Your task to perform on an android device: open chrome privacy settings Image 0: 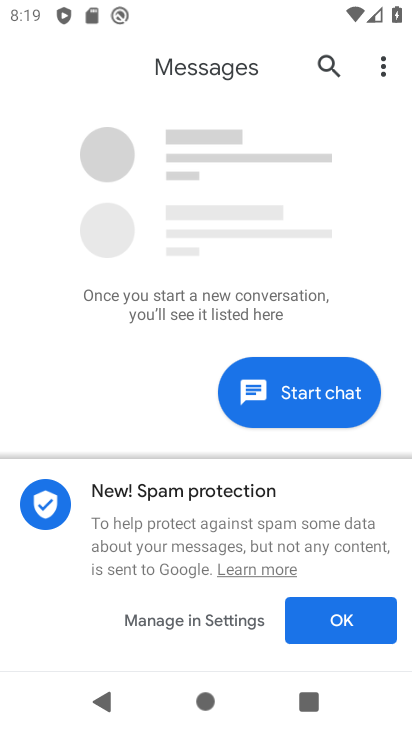
Step 0: task complete